Your task to perform on an android device: change notifications settings Image 0: 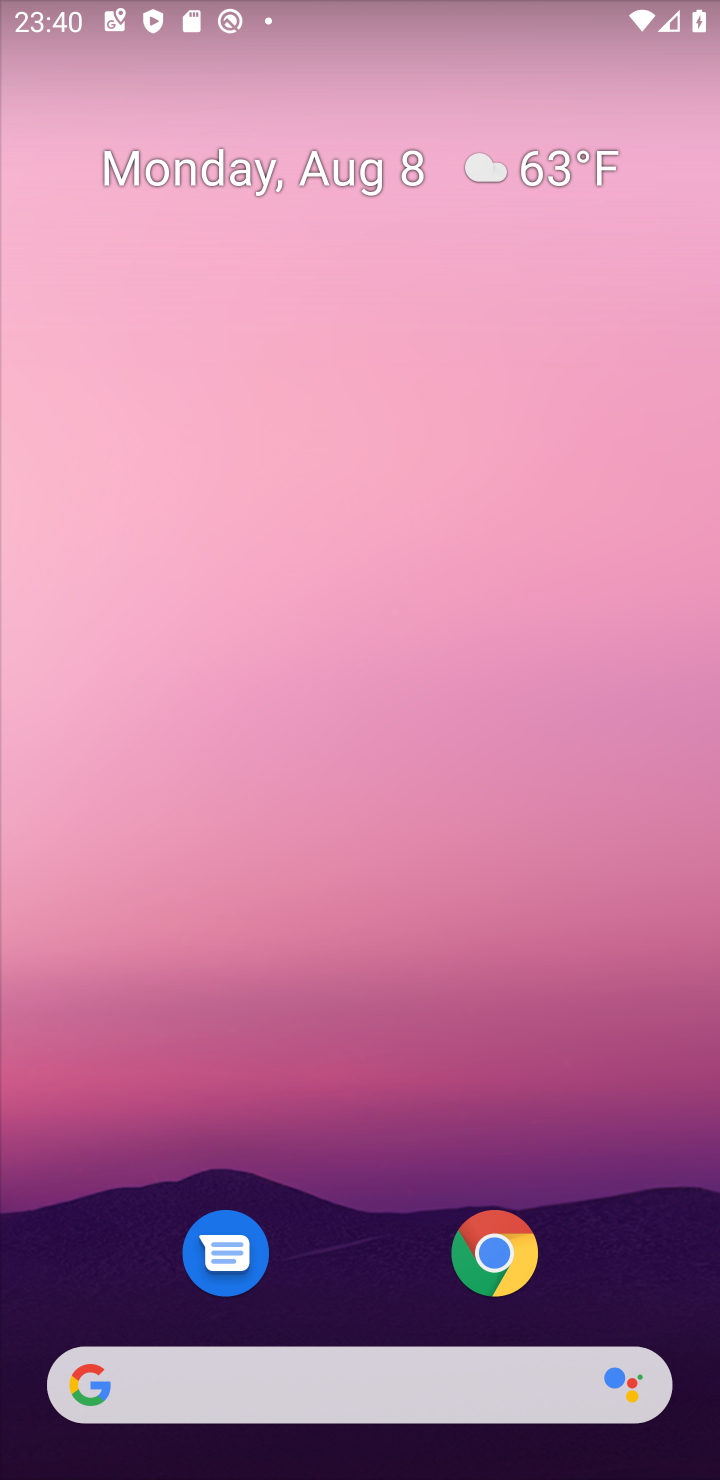
Step 0: drag from (391, 946) to (454, 324)
Your task to perform on an android device: change notifications settings Image 1: 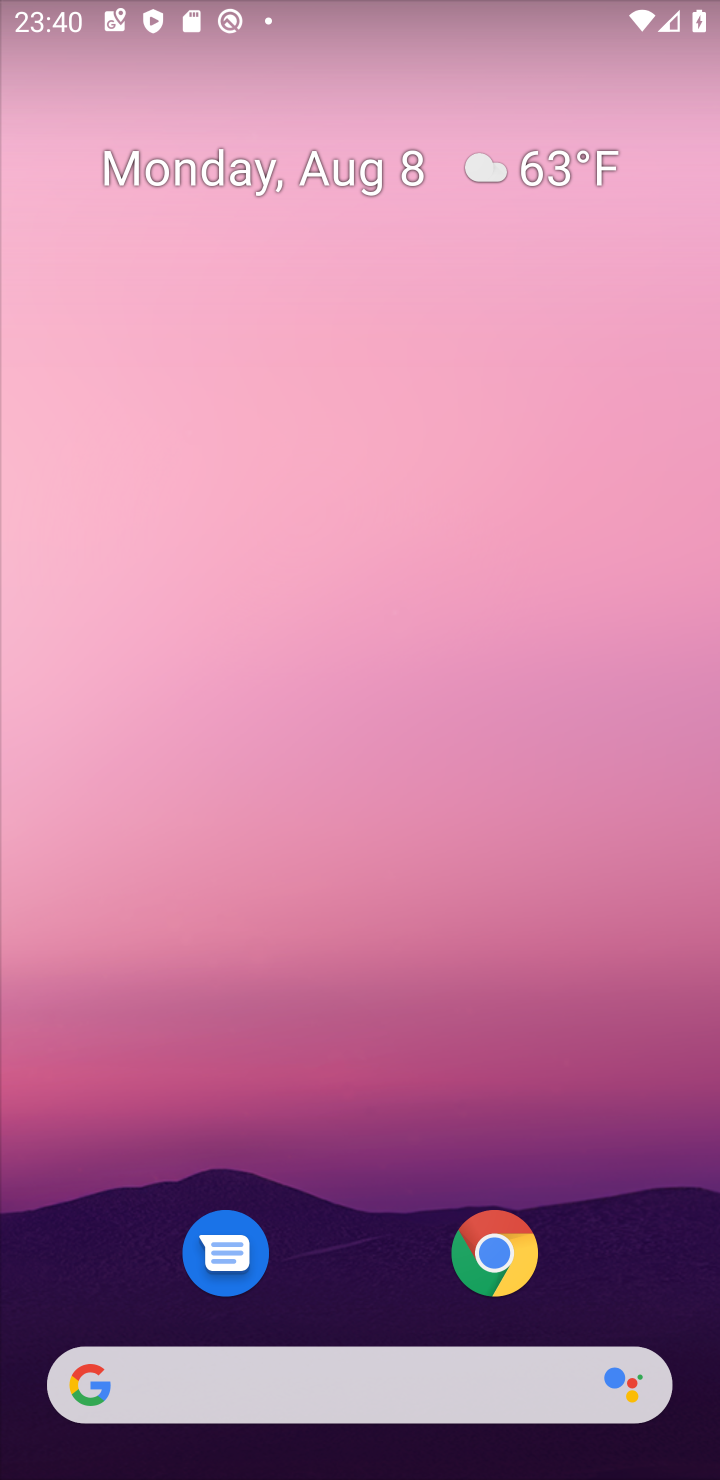
Step 1: drag from (401, 1082) to (457, 72)
Your task to perform on an android device: change notifications settings Image 2: 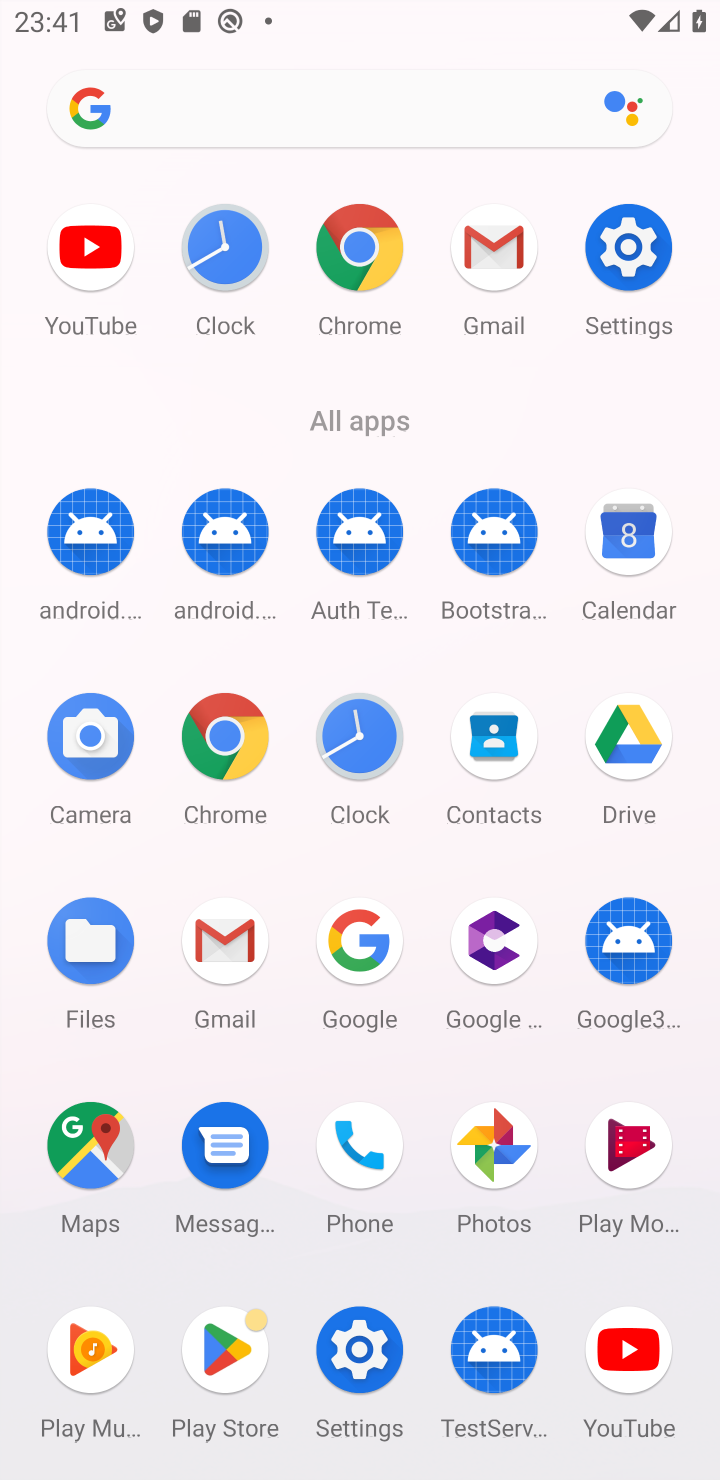
Step 2: click (642, 242)
Your task to perform on an android device: change notifications settings Image 3: 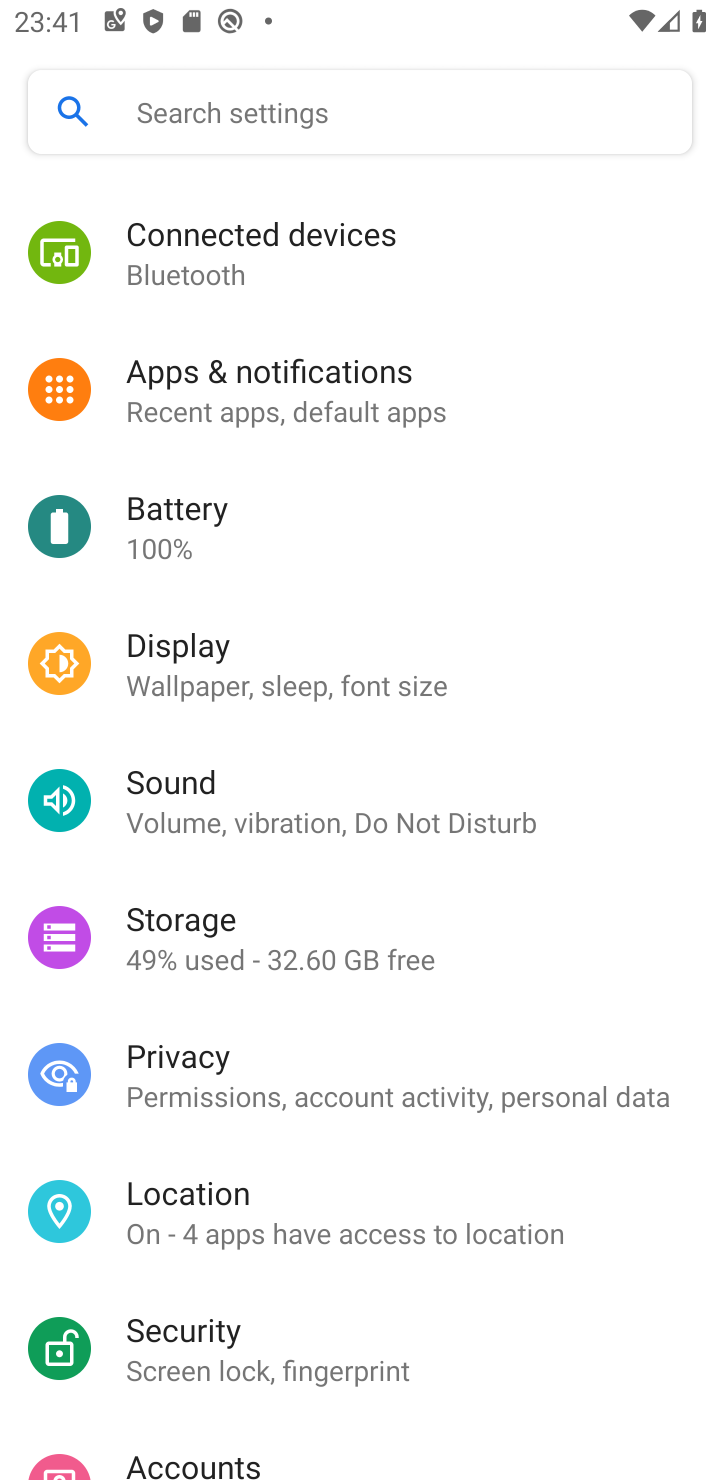
Step 3: click (259, 392)
Your task to perform on an android device: change notifications settings Image 4: 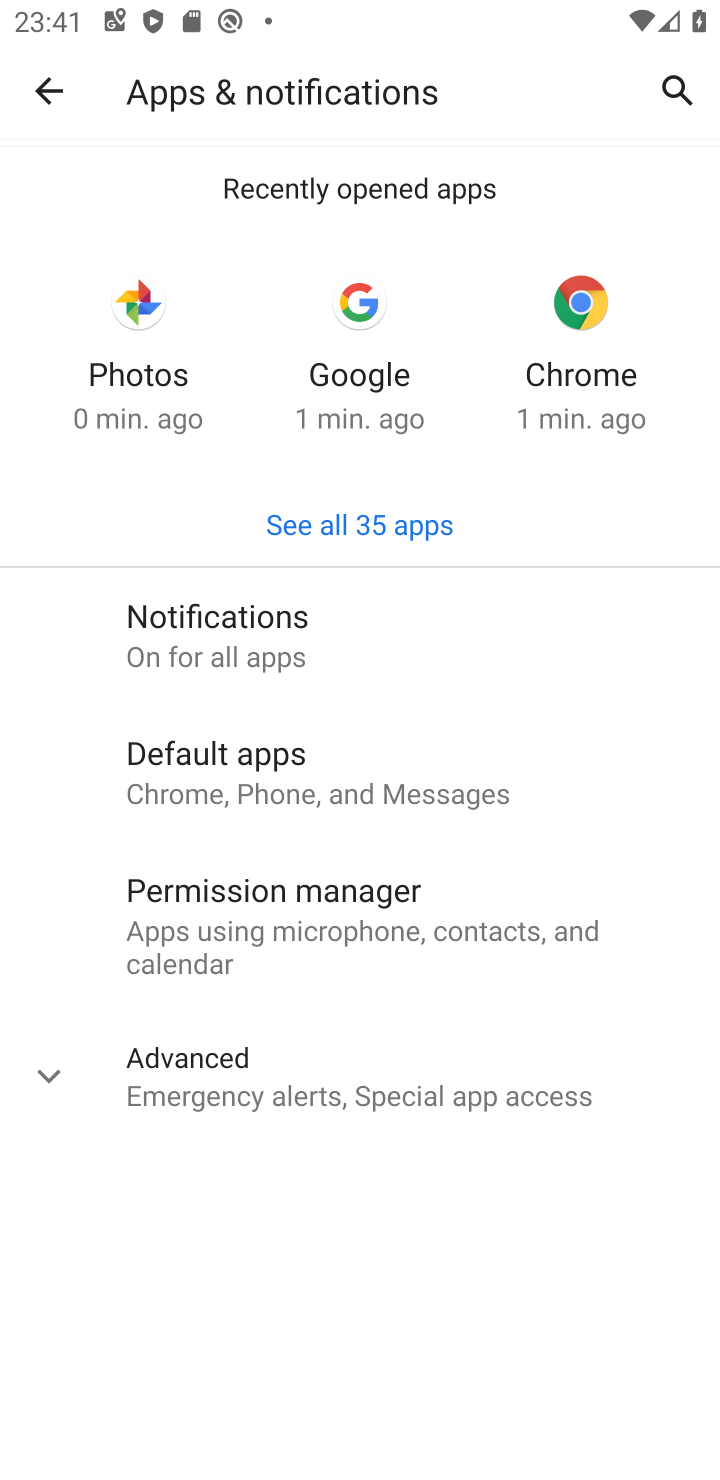
Step 4: click (310, 624)
Your task to perform on an android device: change notifications settings Image 5: 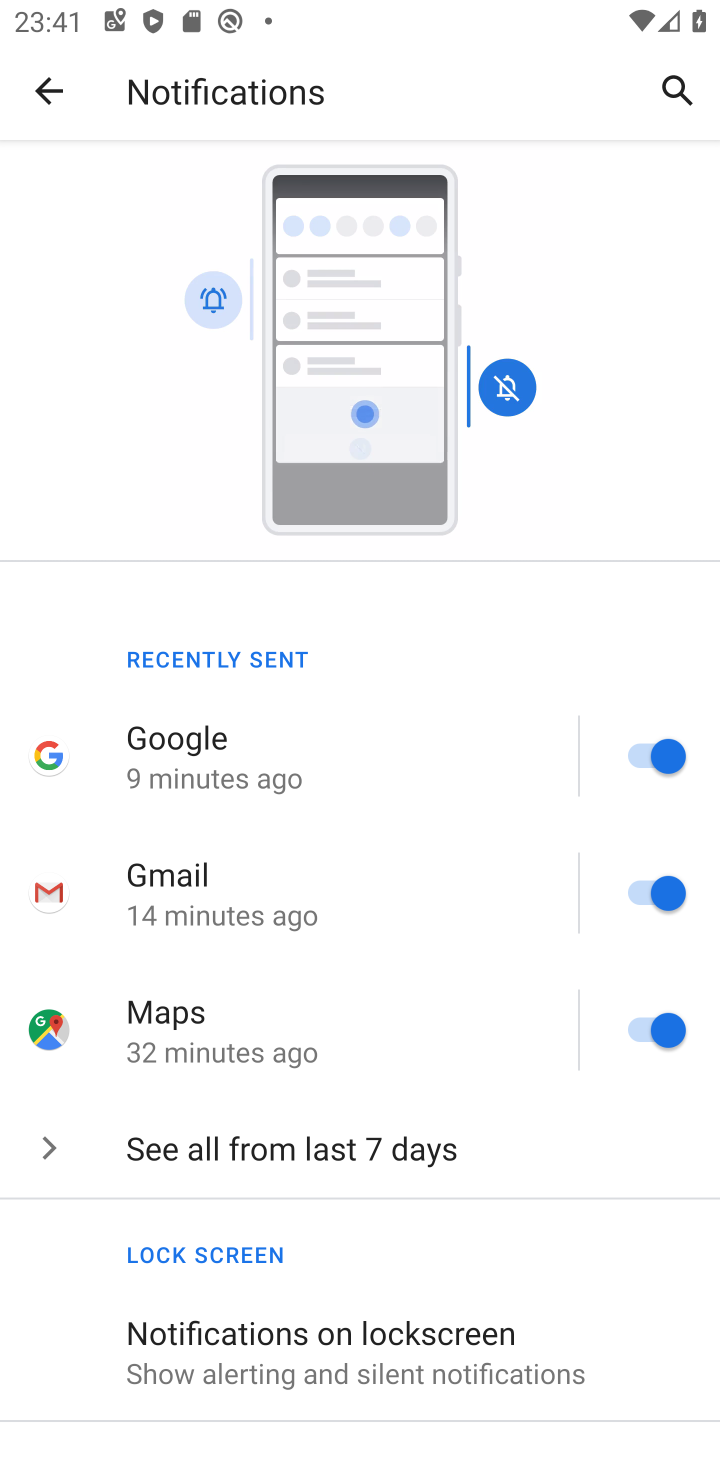
Step 5: click (358, 1142)
Your task to perform on an android device: change notifications settings Image 6: 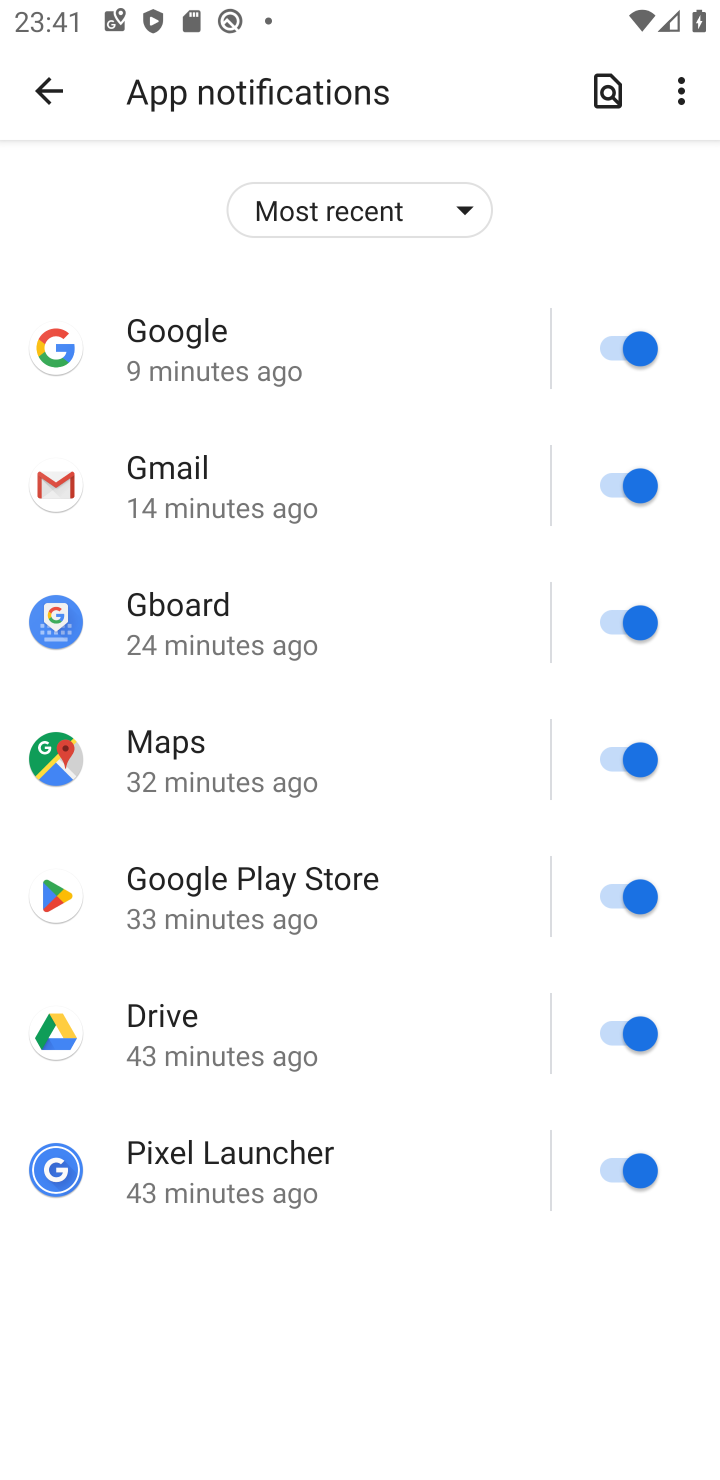
Step 6: click (618, 320)
Your task to perform on an android device: change notifications settings Image 7: 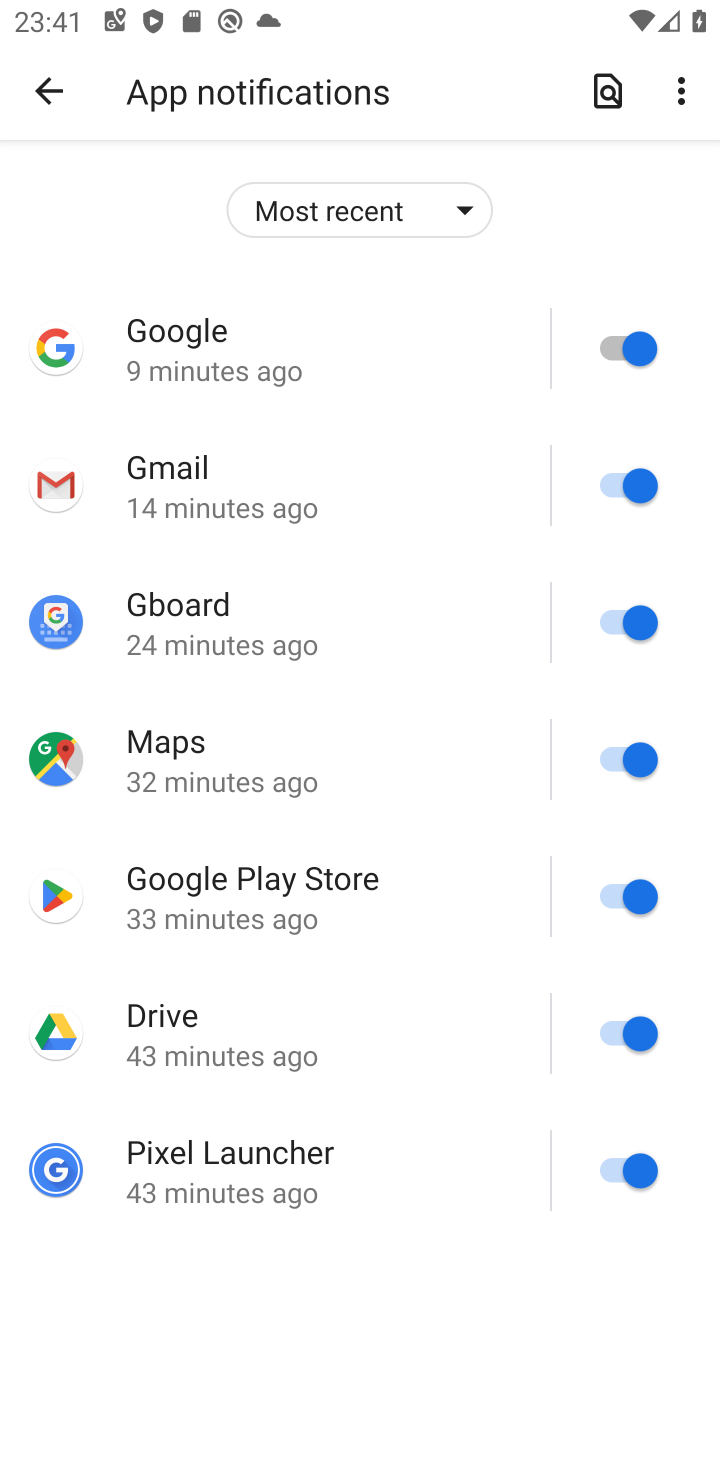
Step 7: click (610, 485)
Your task to perform on an android device: change notifications settings Image 8: 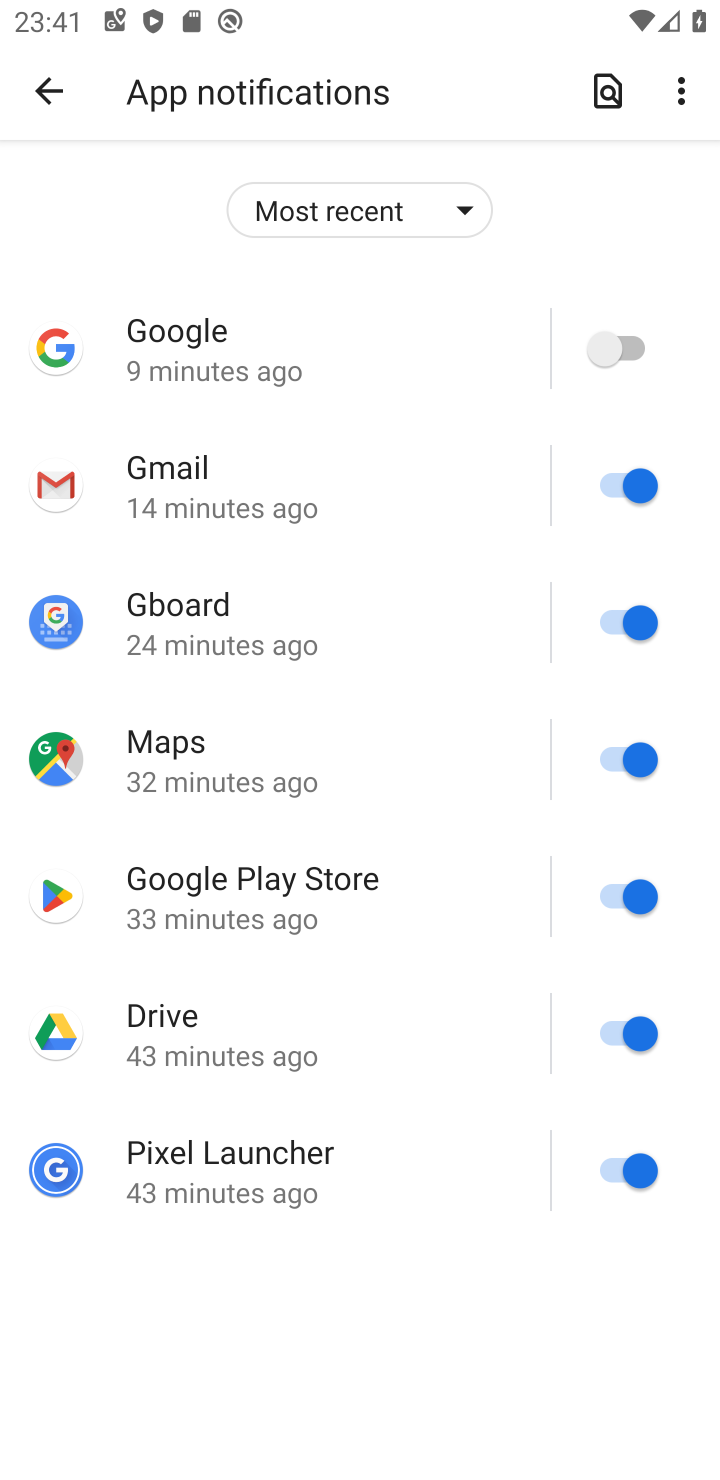
Step 8: click (626, 623)
Your task to perform on an android device: change notifications settings Image 9: 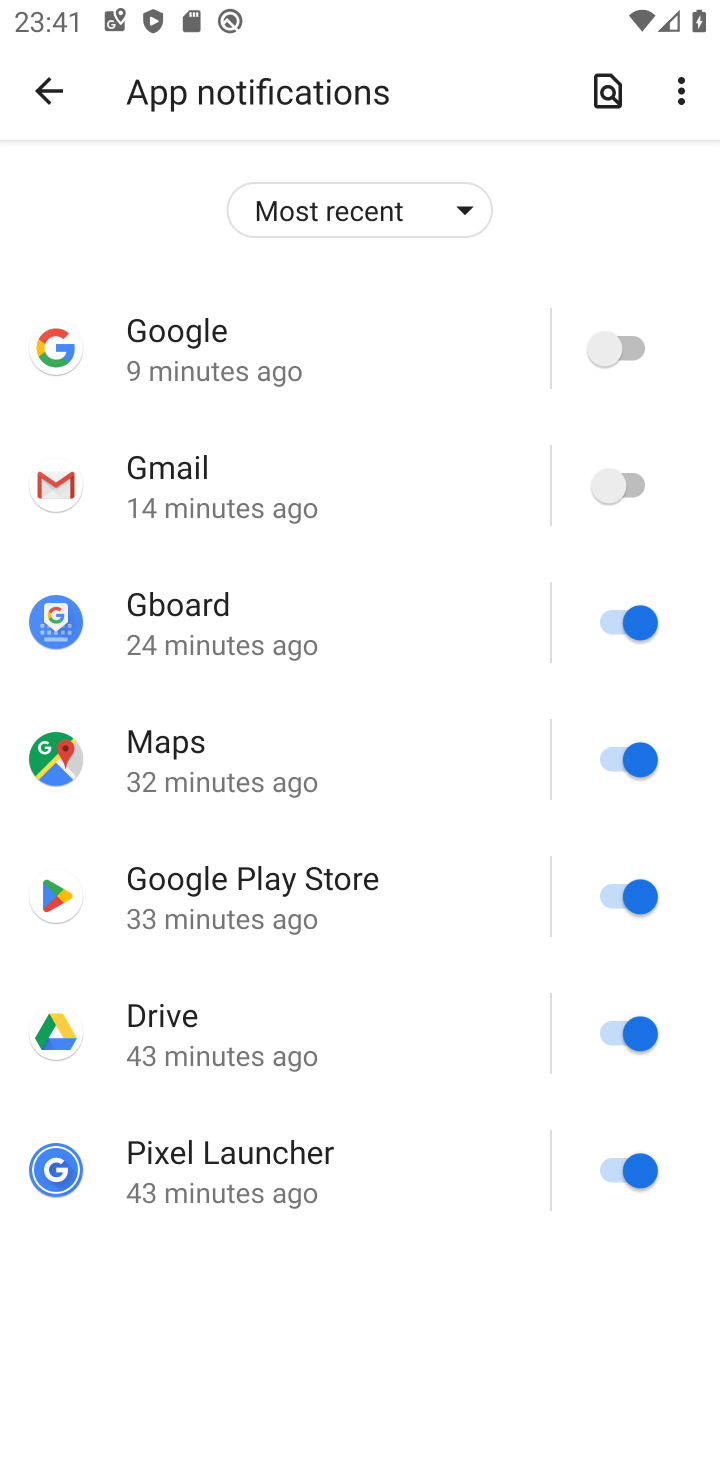
Step 9: click (651, 741)
Your task to perform on an android device: change notifications settings Image 10: 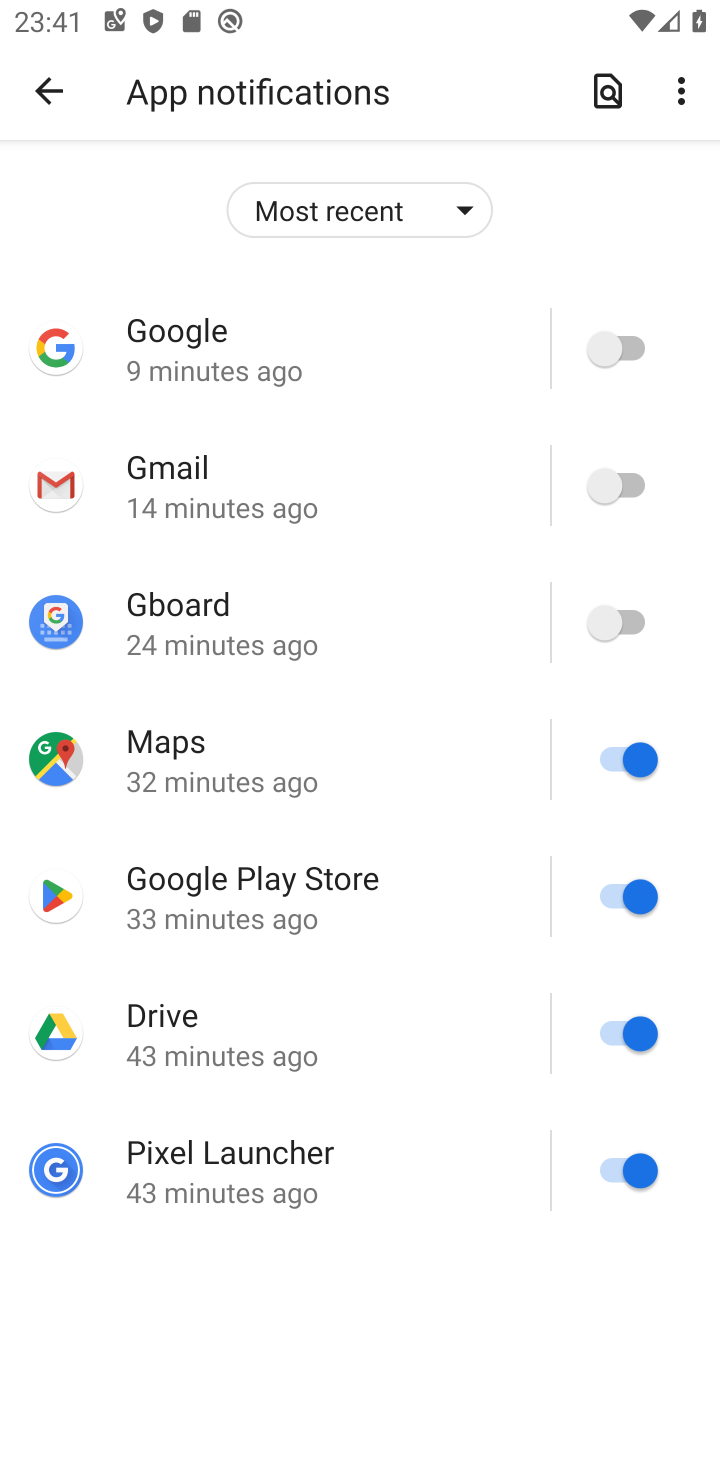
Step 10: drag from (630, 869) to (630, 1026)
Your task to perform on an android device: change notifications settings Image 11: 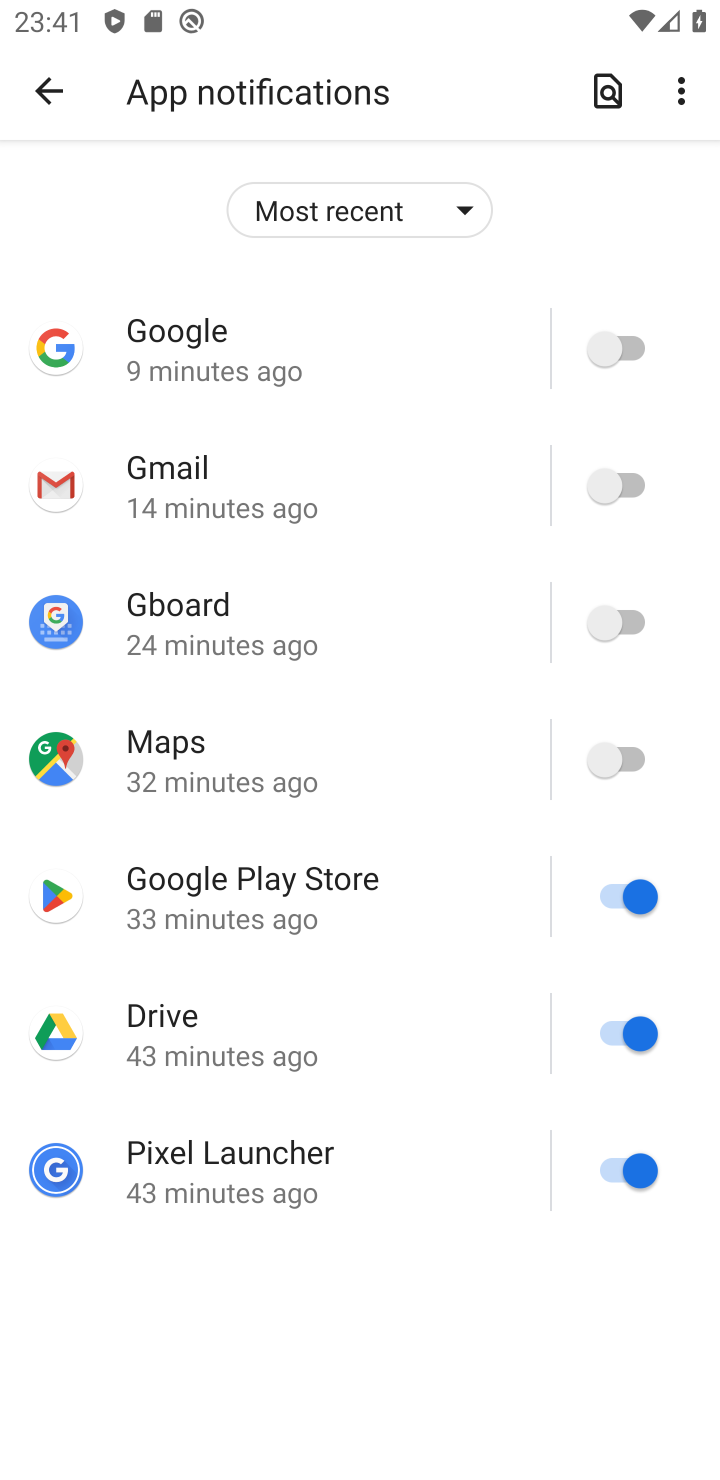
Step 11: drag from (630, 1142) to (647, 973)
Your task to perform on an android device: change notifications settings Image 12: 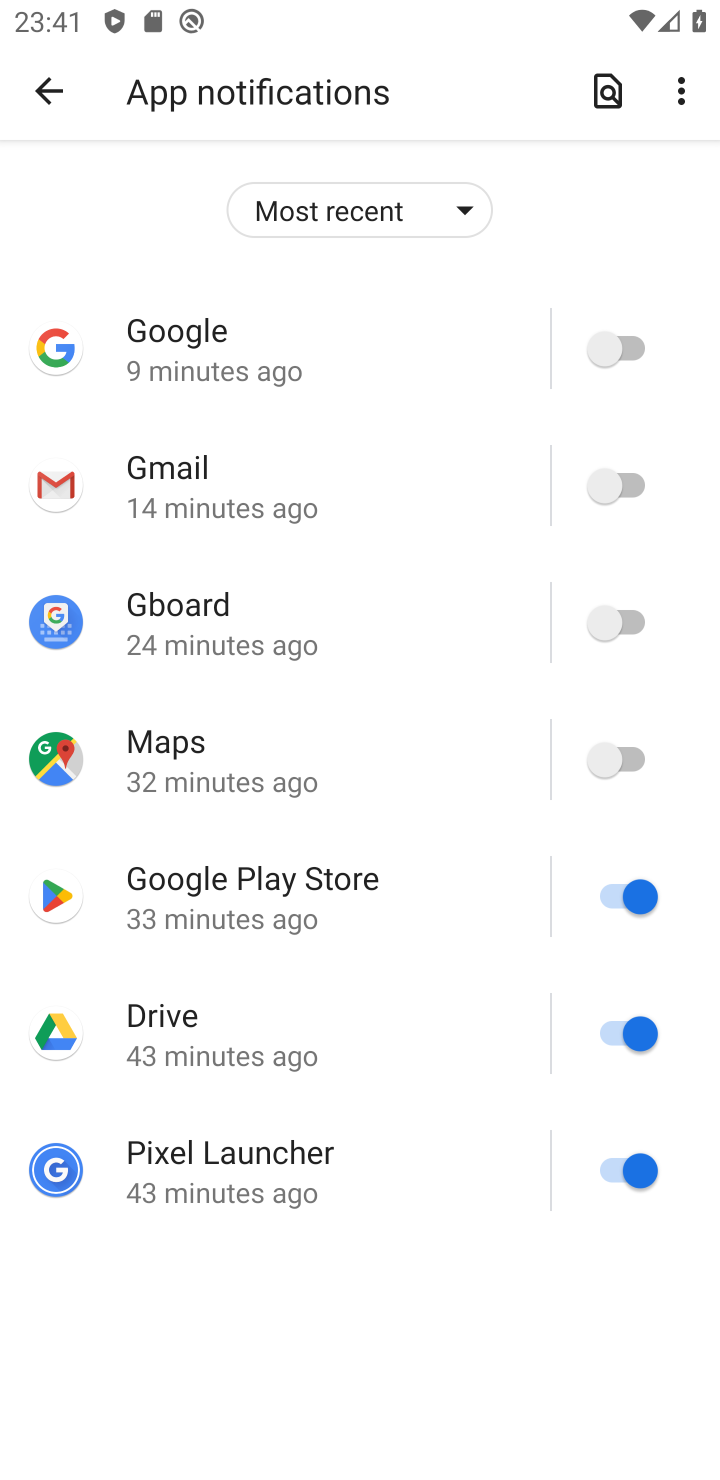
Step 12: click (631, 911)
Your task to perform on an android device: change notifications settings Image 13: 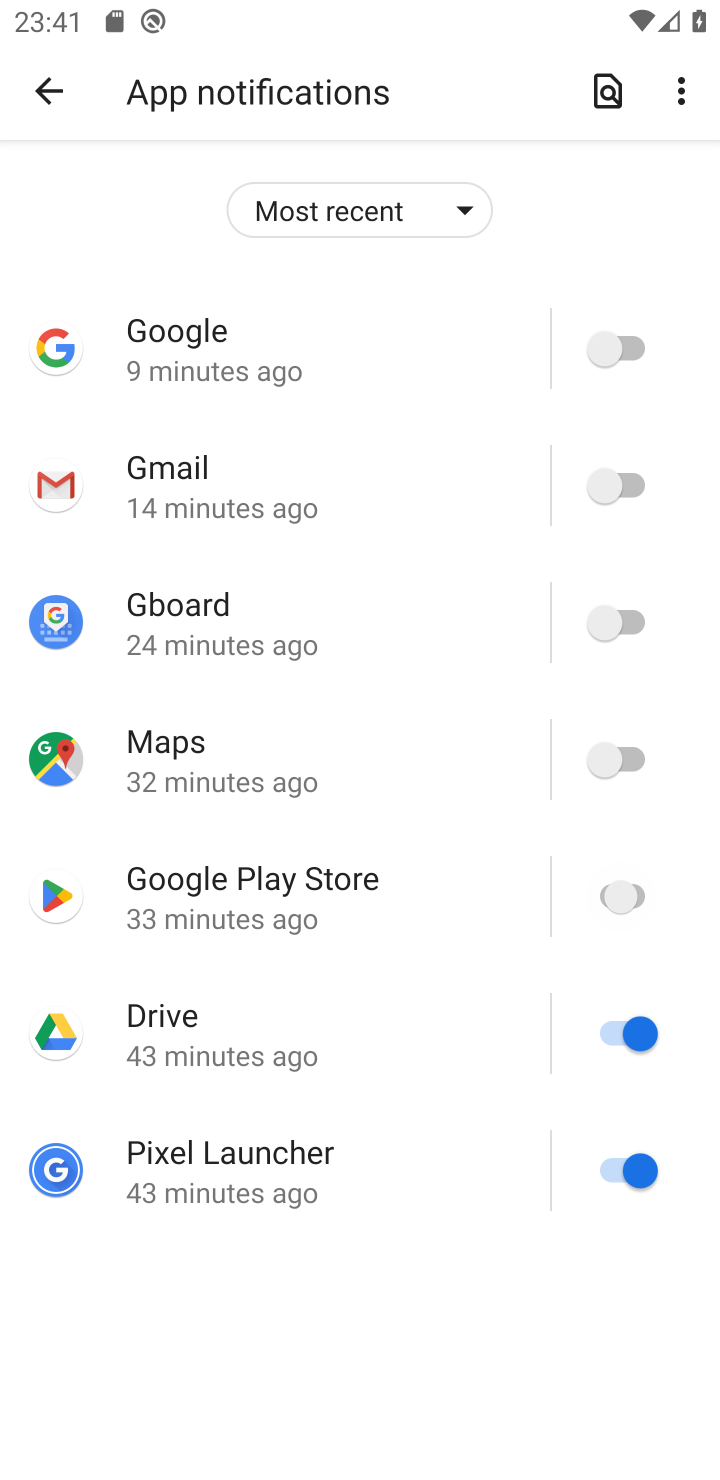
Step 13: click (627, 1033)
Your task to perform on an android device: change notifications settings Image 14: 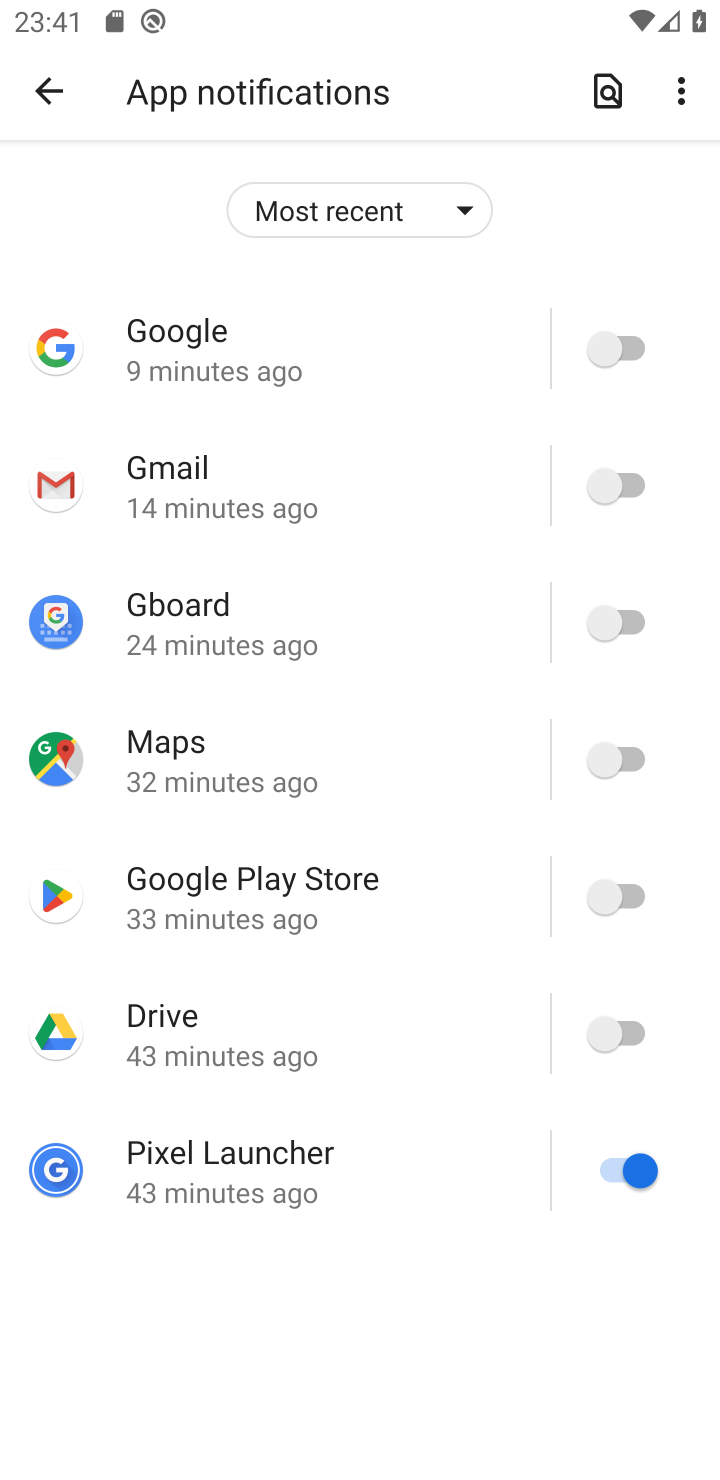
Step 14: click (619, 1172)
Your task to perform on an android device: change notifications settings Image 15: 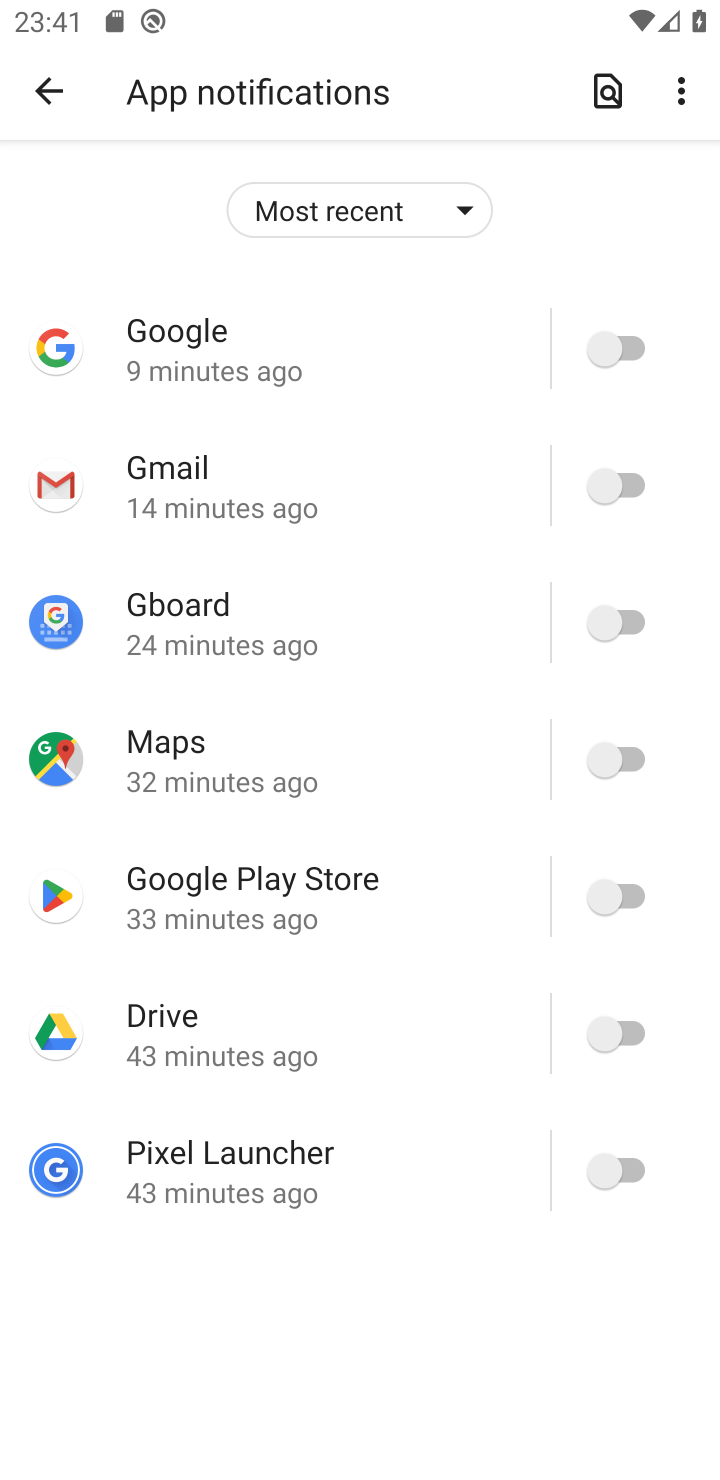
Step 15: task complete